Your task to perform on an android device: Open notification settings Image 0: 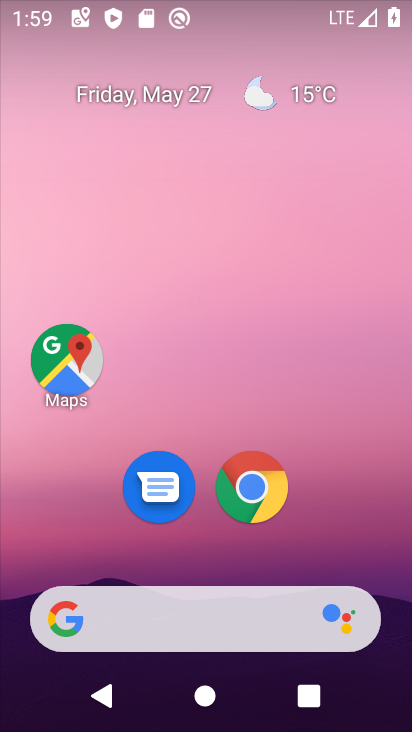
Step 0: drag from (352, 476) to (384, 168)
Your task to perform on an android device: Open notification settings Image 1: 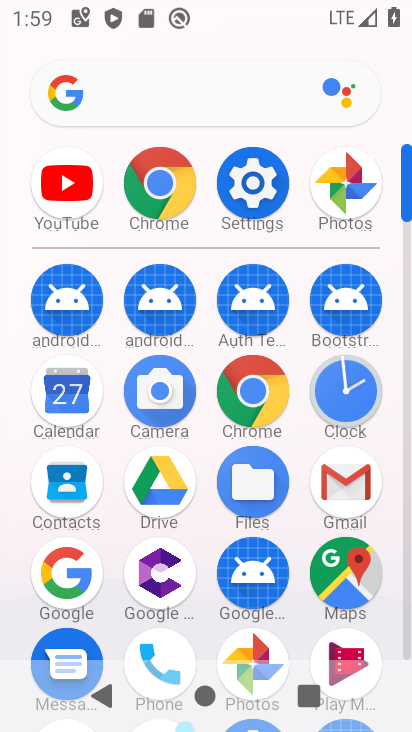
Step 1: click (239, 169)
Your task to perform on an android device: Open notification settings Image 2: 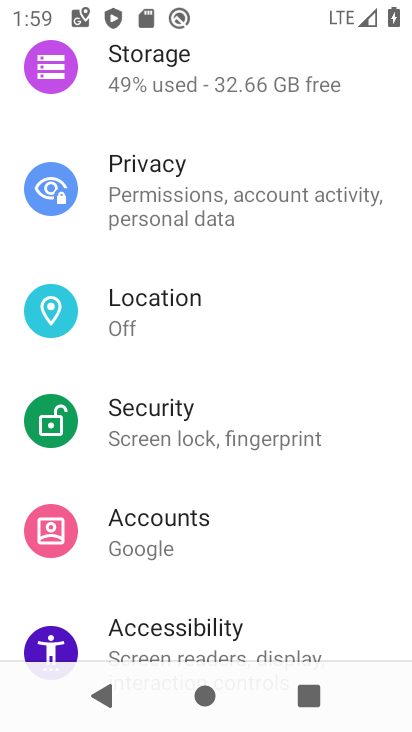
Step 2: drag from (242, 165) to (180, 629)
Your task to perform on an android device: Open notification settings Image 3: 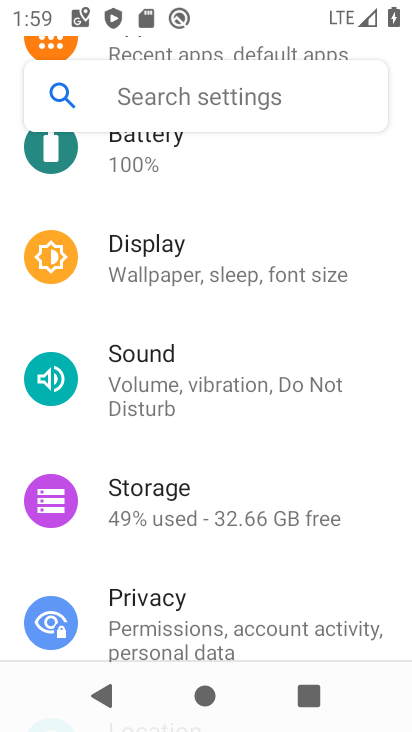
Step 3: drag from (232, 262) to (188, 590)
Your task to perform on an android device: Open notification settings Image 4: 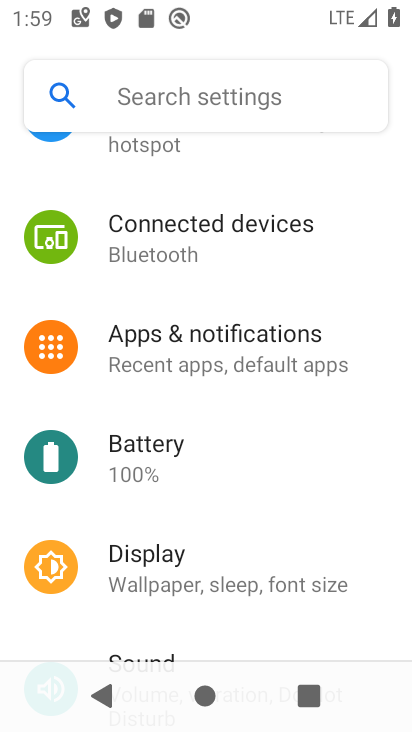
Step 4: click (210, 380)
Your task to perform on an android device: Open notification settings Image 5: 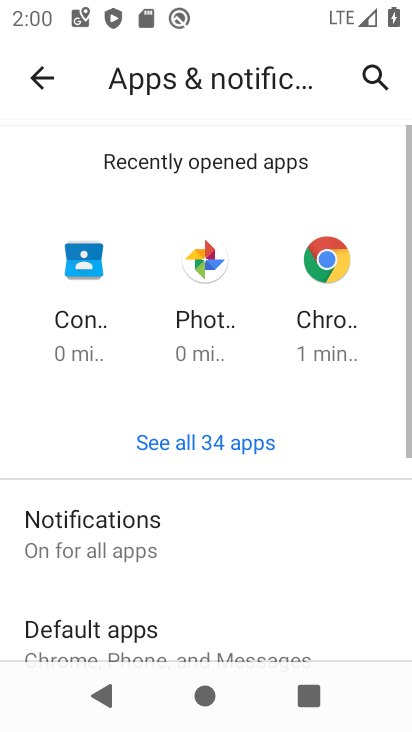
Step 5: drag from (168, 550) to (241, 329)
Your task to perform on an android device: Open notification settings Image 6: 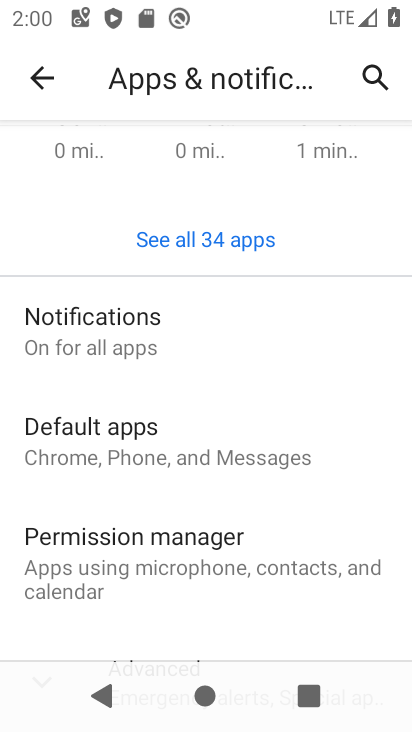
Step 6: drag from (203, 498) to (232, 421)
Your task to perform on an android device: Open notification settings Image 7: 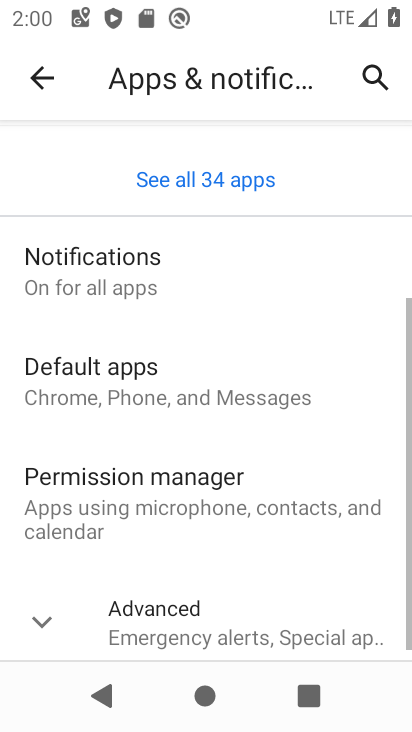
Step 7: click (239, 405)
Your task to perform on an android device: Open notification settings Image 8: 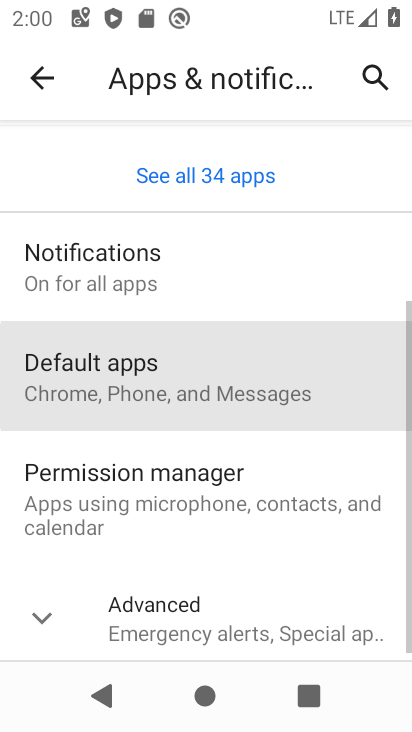
Step 8: click (239, 403)
Your task to perform on an android device: Open notification settings Image 9: 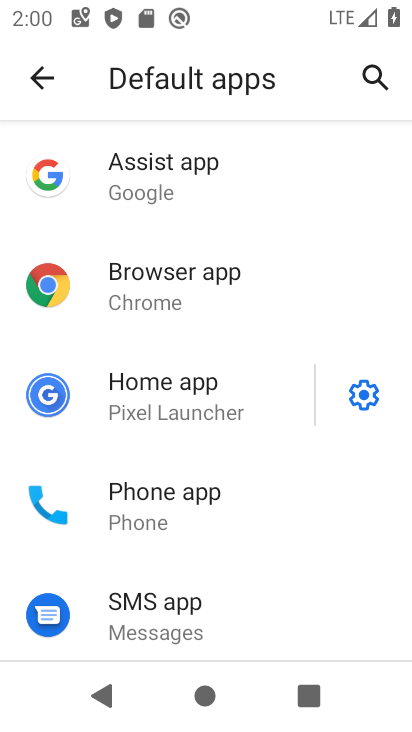
Step 9: click (239, 403)
Your task to perform on an android device: Open notification settings Image 10: 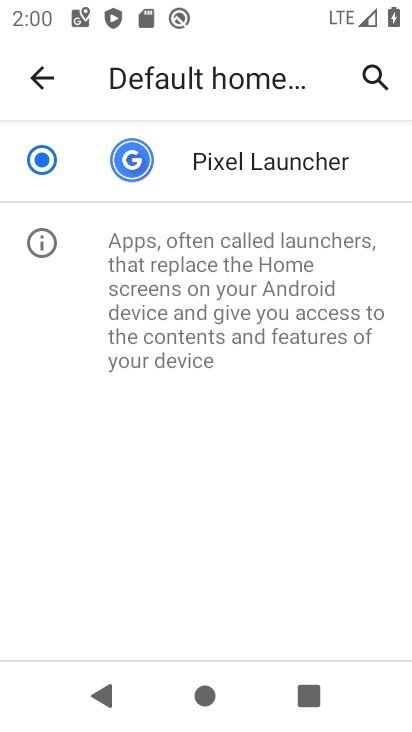
Step 10: click (38, 60)
Your task to perform on an android device: Open notification settings Image 11: 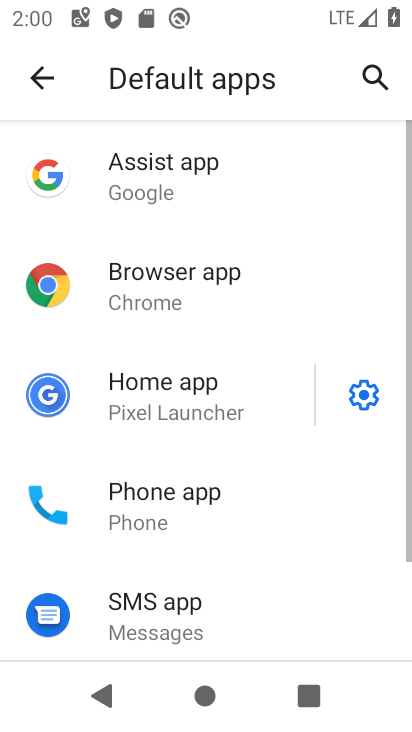
Step 11: drag from (155, 209) to (111, 433)
Your task to perform on an android device: Open notification settings Image 12: 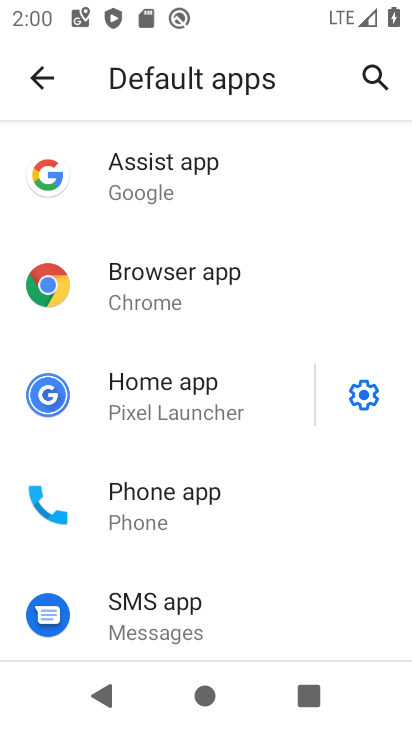
Step 12: click (54, 78)
Your task to perform on an android device: Open notification settings Image 13: 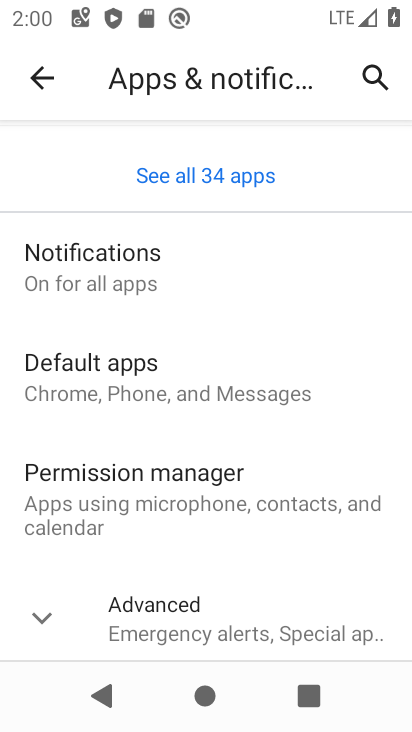
Step 13: click (139, 276)
Your task to perform on an android device: Open notification settings Image 14: 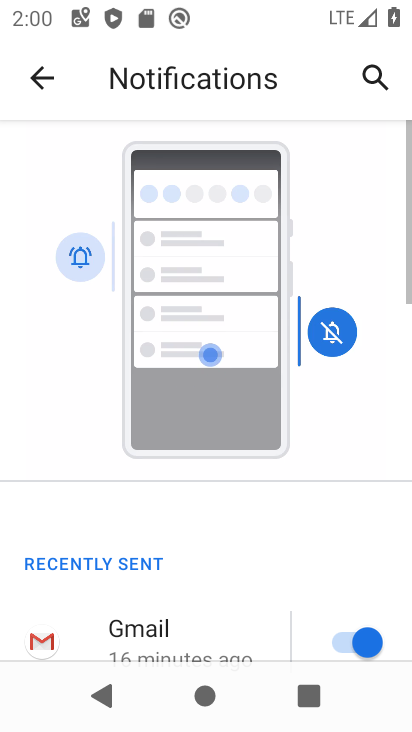
Step 14: task complete